Your task to perform on an android device: Play the last video I watched on Youtube Image 0: 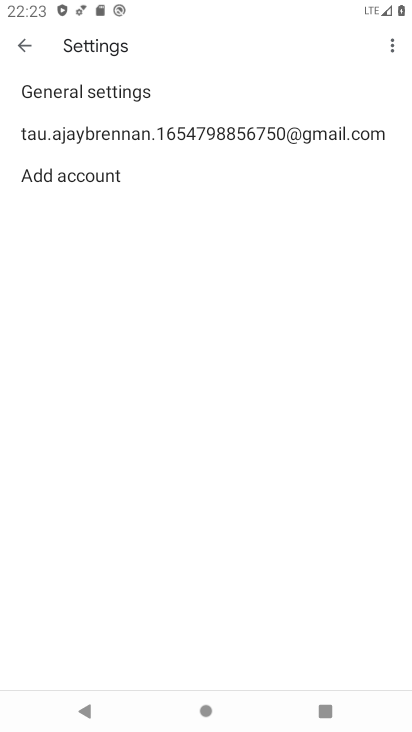
Step 0: press home button
Your task to perform on an android device: Play the last video I watched on Youtube Image 1: 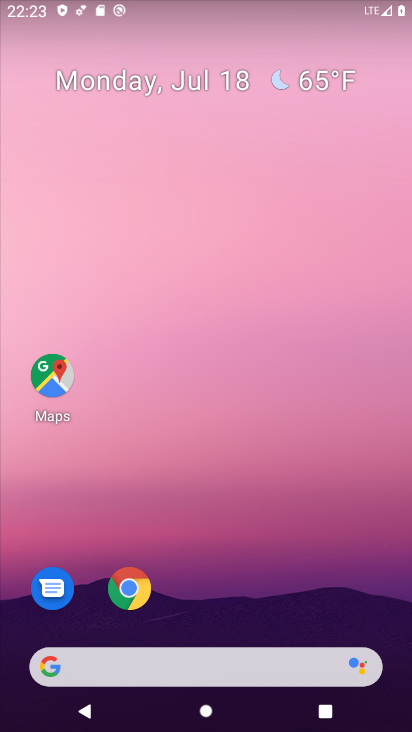
Step 1: drag from (356, 573) to (390, 89)
Your task to perform on an android device: Play the last video I watched on Youtube Image 2: 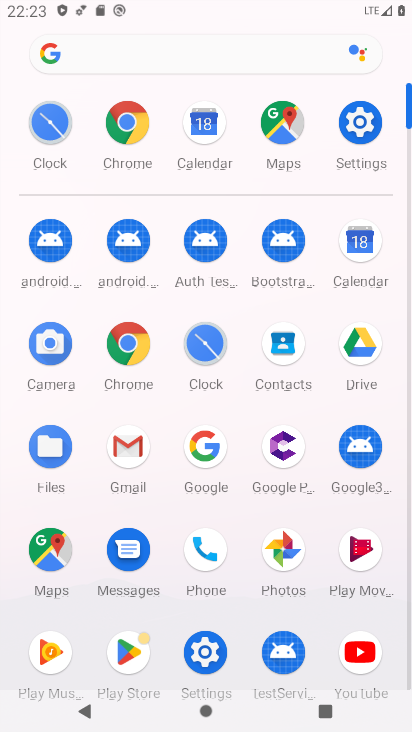
Step 2: click (361, 645)
Your task to perform on an android device: Play the last video I watched on Youtube Image 3: 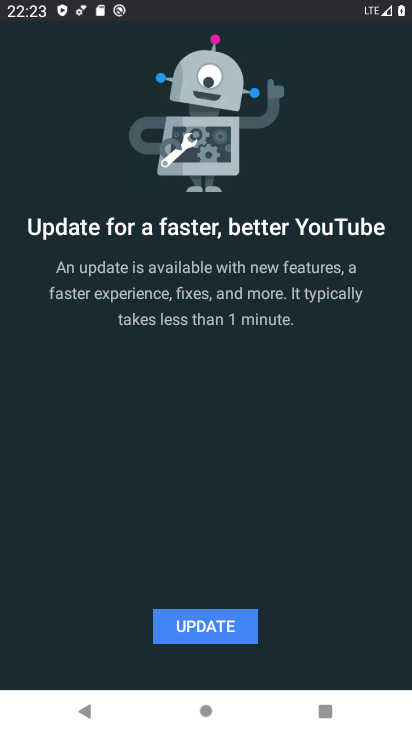
Step 3: click (234, 634)
Your task to perform on an android device: Play the last video I watched on Youtube Image 4: 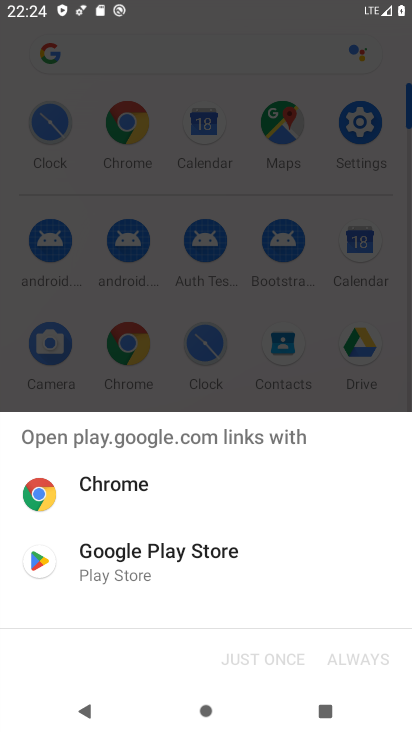
Step 4: click (98, 559)
Your task to perform on an android device: Play the last video I watched on Youtube Image 5: 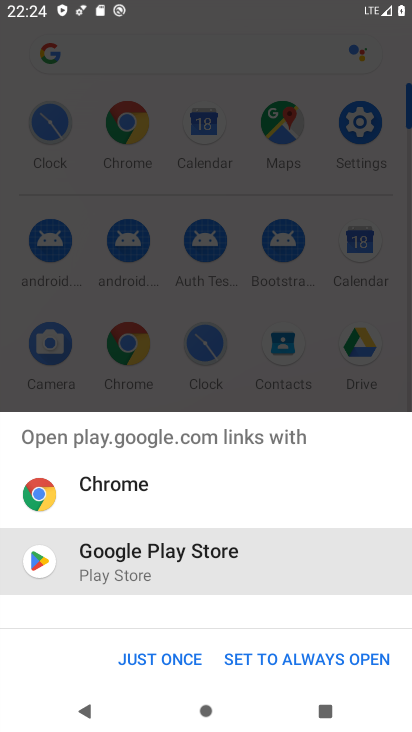
Step 5: click (162, 656)
Your task to perform on an android device: Play the last video I watched on Youtube Image 6: 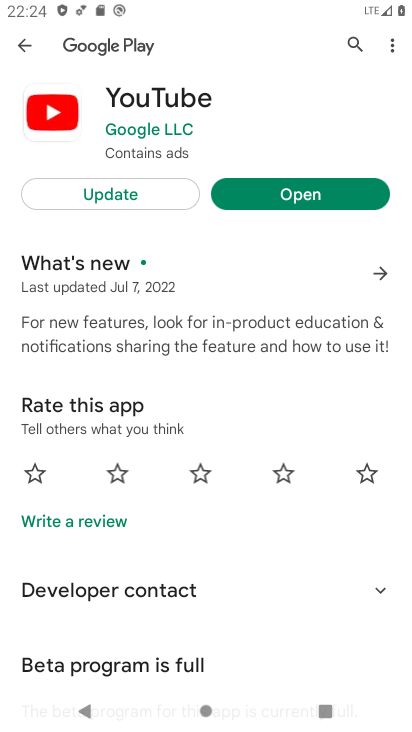
Step 6: click (119, 189)
Your task to perform on an android device: Play the last video I watched on Youtube Image 7: 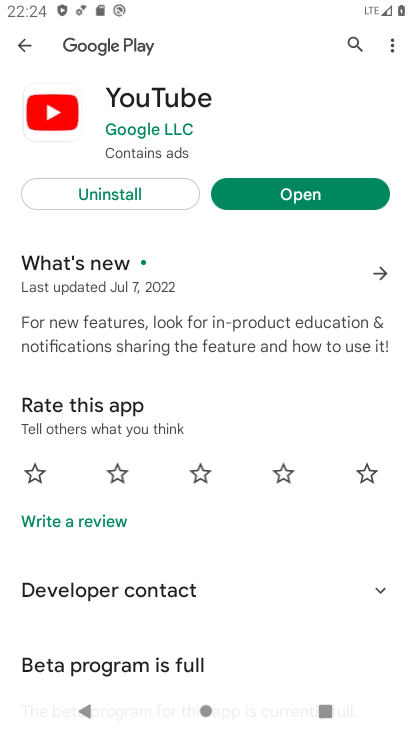
Step 7: click (345, 191)
Your task to perform on an android device: Play the last video I watched on Youtube Image 8: 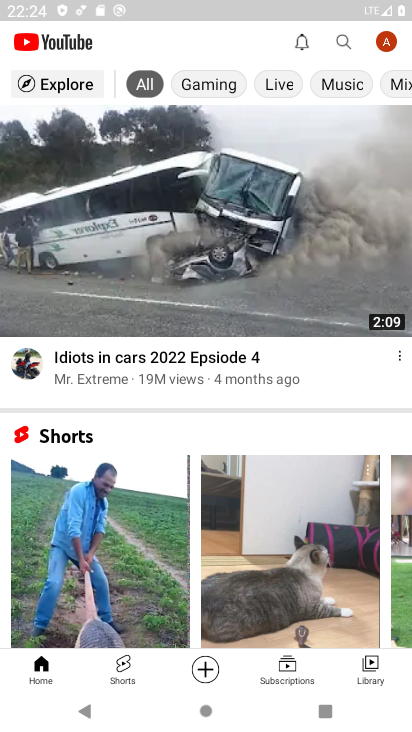
Step 8: click (361, 666)
Your task to perform on an android device: Play the last video I watched on Youtube Image 9: 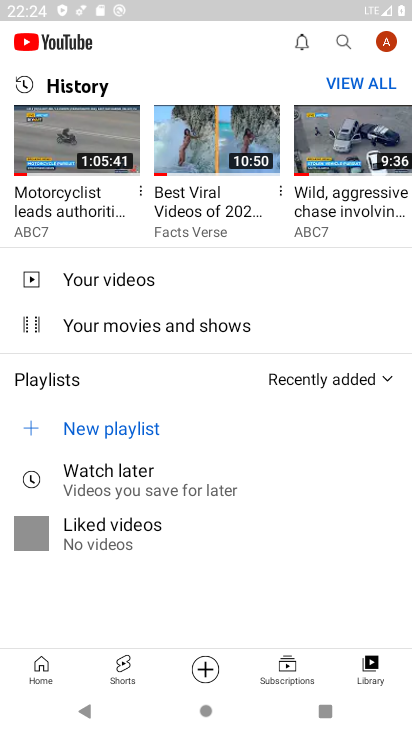
Step 9: click (382, 83)
Your task to perform on an android device: Play the last video I watched on Youtube Image 10: 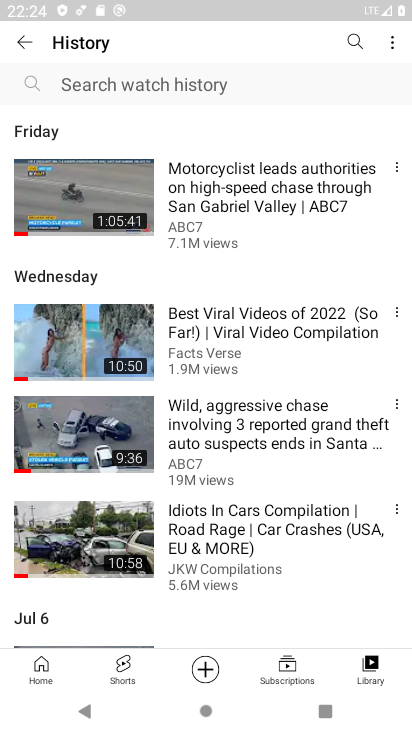
Step 10: click (123, 207)
Your task to perform on an android device: Play the last video I watched on Youtube Image 11: 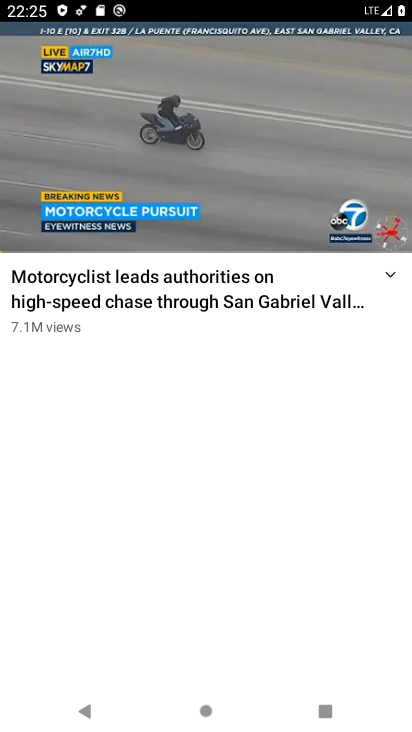
Step 11: task complete